Your task to perform on an android device: Open display settings Image 0: 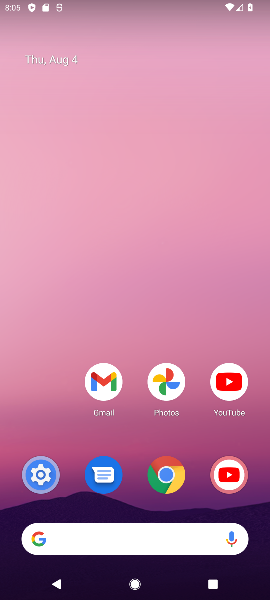
Step 0: drag from (143, 504) to (185, 98)
Your task to perform on an android device: Open display settings Image 1: 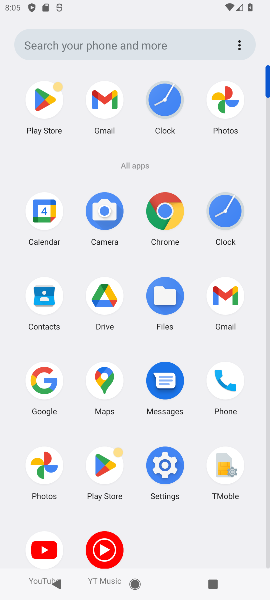
Step 1: drag from (128, 499) to (133, 229)
Your task to perform on an android device: Open display settings Image 2: 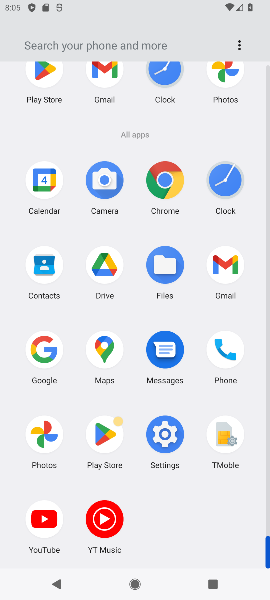
Step 2: drag from (144, 510) to (142, 312)
Your task to perform on an android device: Open display settings Image 3: 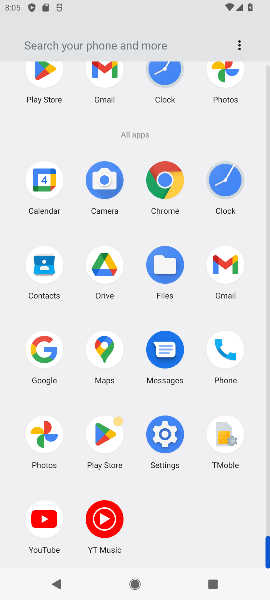
Step 3: click (166, 438)
Your task to perform on an android device: Open display settings Image 4: 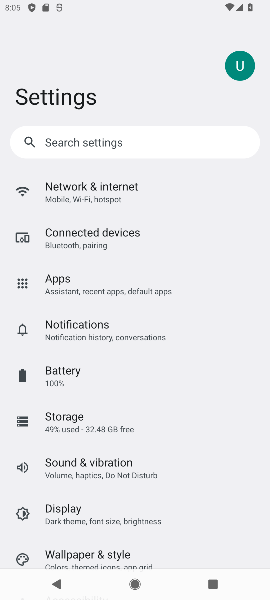
Step 4: drag from (140, 465) to (181, 205)
Your task to perform on an android device: Open display settings Image 5: 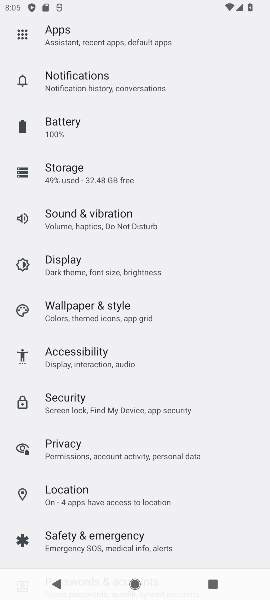
Step 5: click (85, 497)
Your task to perform on an android device: Open display settings Image 6: 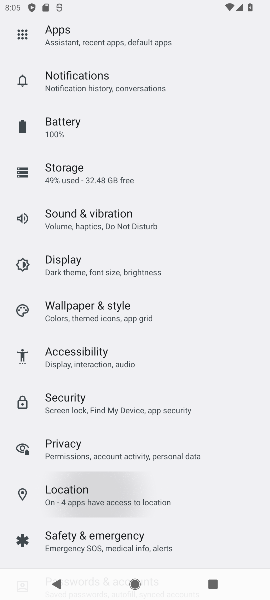
Step 6: drag from (85, 497) to (156, 266)
Your task to perform on an android device: Open display settings Image 7: 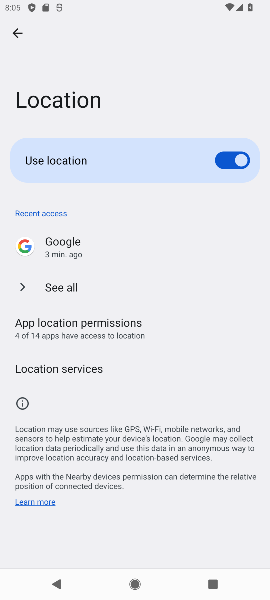
Step 7: click (15, 25)
Your task to perform on an android device: Open display settings Image 8: 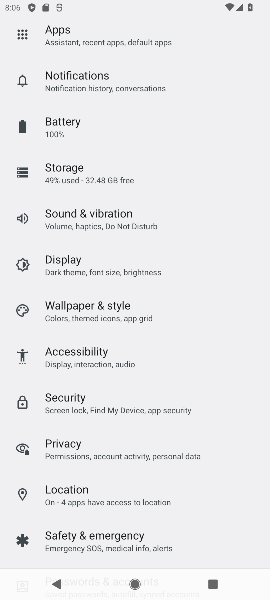
Step 8: click (99, 268)
Your task to perform on an android device: Open display settings Image 9: 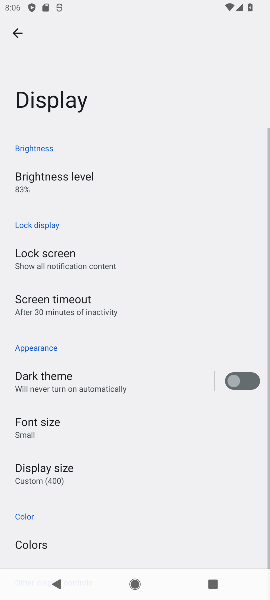
Step 9: task complete